Your task to perform on an android device: Show me recent news Image 0: 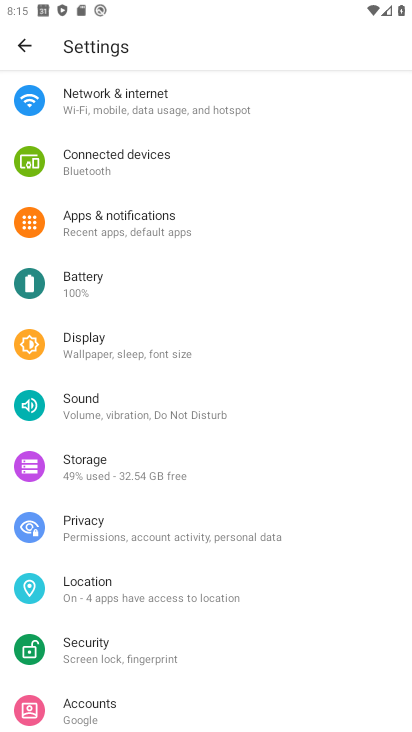
Step 0: press home button
Your task to perform on an android device: Show me recent news Image 1: 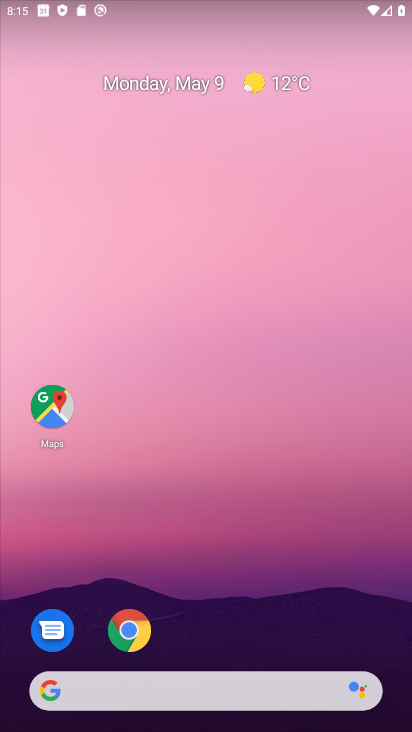
Step 1: drag from (150, 670) to (156, 346)
Your task to perform on an android device: Show me recent news Image 2: 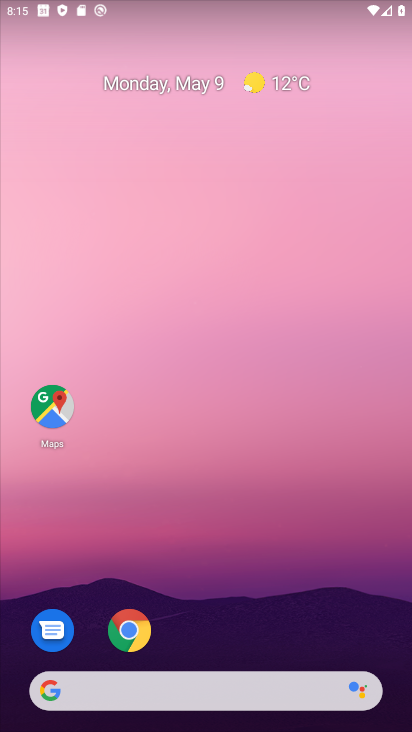
Step 2: drag from (182, 687) to (173, 292)
Your task to perform on an android device: Show me recent news Image 3: 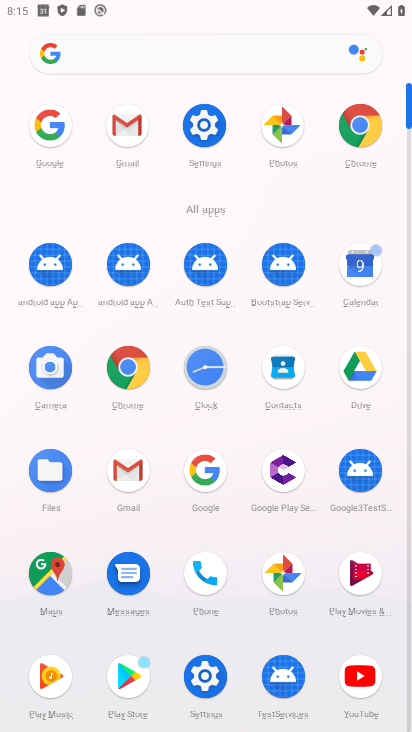
Step 3: click (203, 479)
Your task to perform on an android device: Show me recent news Image 4: 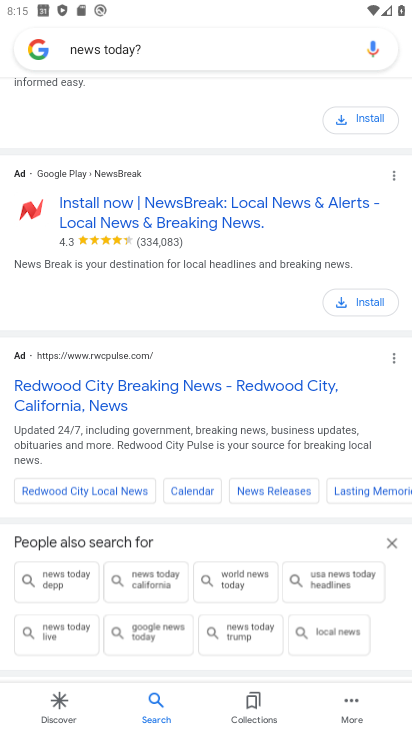
Step 4: click (251, 49)
Your task to perform on an android device: Show me recent news Image 5: 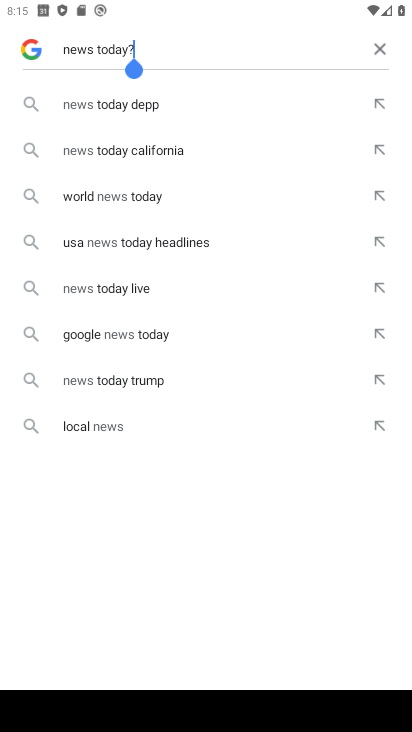
Step 5: click (376, 50)
Your task to perform on an android device: Show me recent news Image 6: 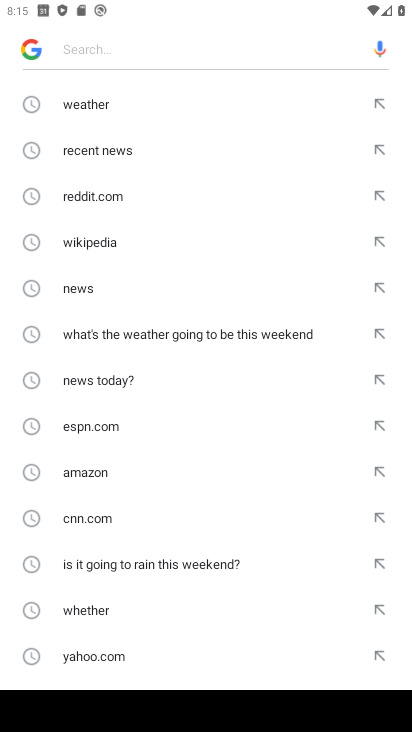
Step 6: click (98, 153)
Your task to perform on an android device: Show me recent news Image 7: 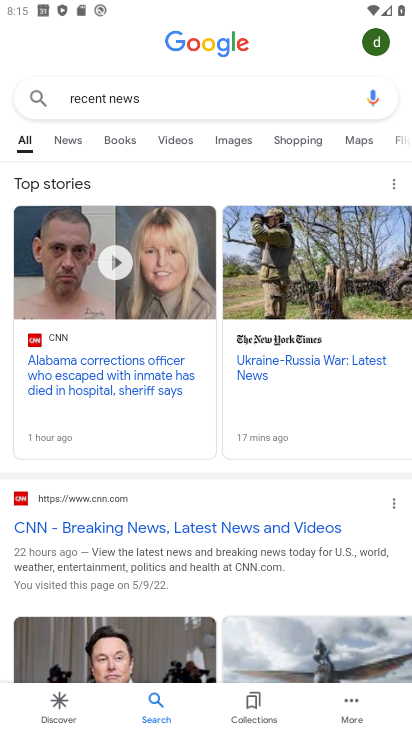
Step 7: drag from (103, 537) to (85, 321)
Your task to perform on an android device: Show me recent news Image 8: 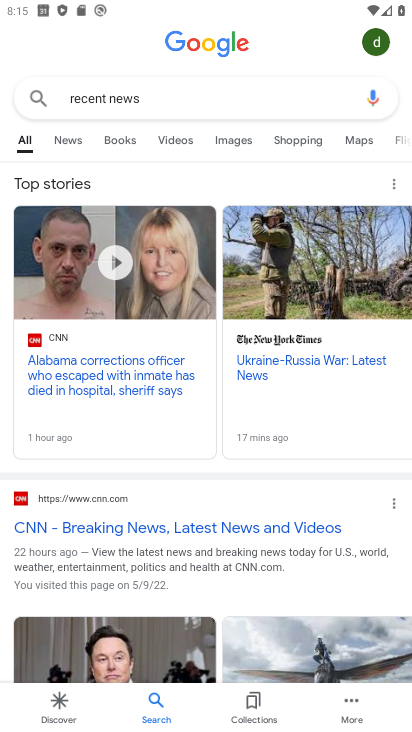
Step 8: click (102, 515)
Your task to perform on an android device: Show me recent news Image 9: 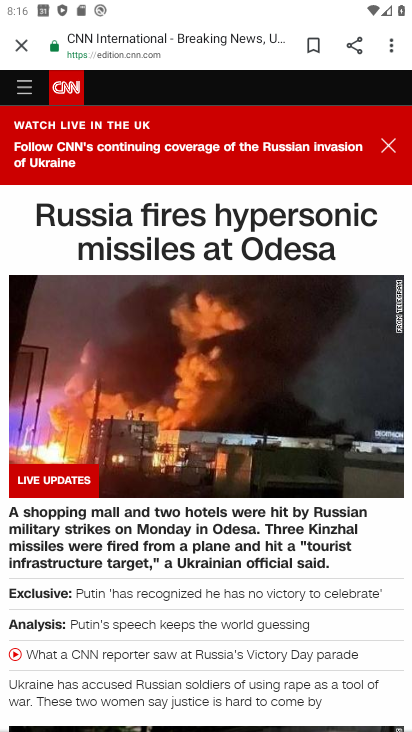
Step 9: task complete